Your task to perform on an android device: Go to Yahoo.com Image 0: 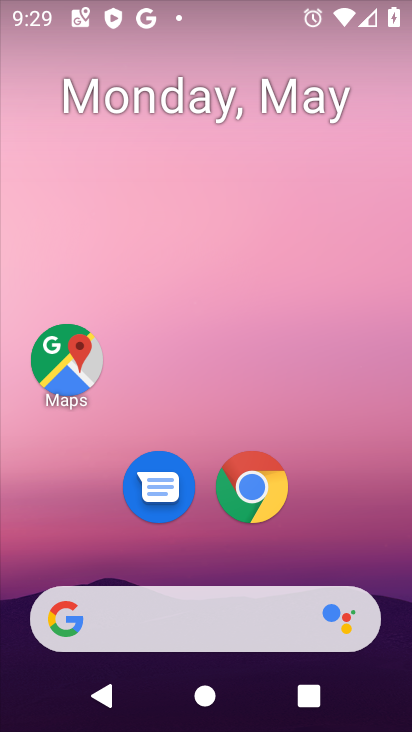
Step 0: click (247, 488)
Your task to perform on an android device: Go to Yahoo.com Image 1: 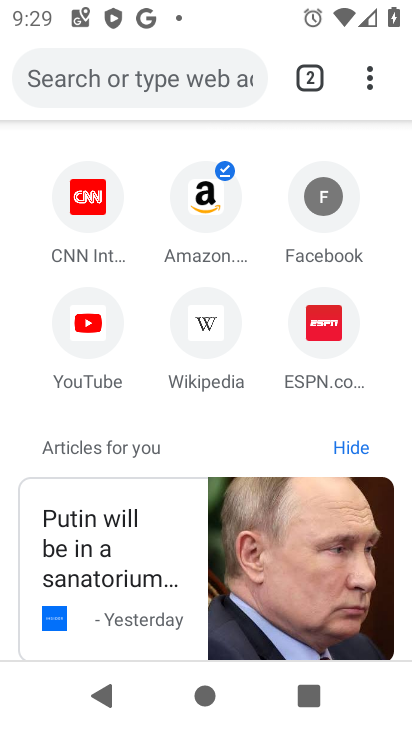
Step 1: click (152, 83)
Your task to perform on an android device: Go to Yahoo.com Image 2: 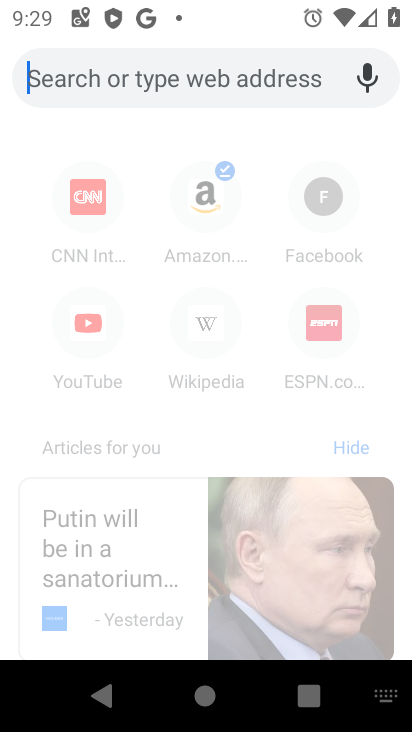
Step 2: type "yahoo"
Your task to perform on an android device: Go to Yahoo.com Image 3: 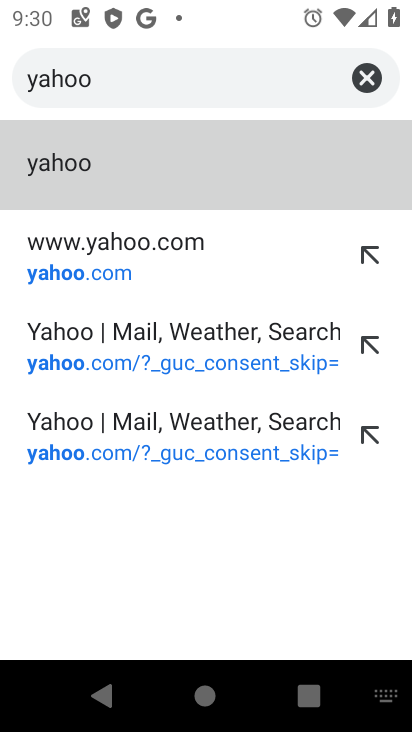
Step 3: click (110, 280)
Your task to perform on an android device: Go to Yahoo.com Image 4: 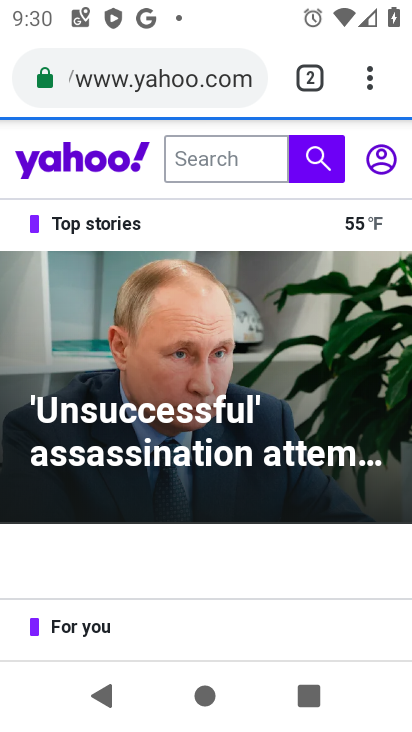
Step 4: task complete